Your task to perform on an android device: turn on wifi Image 0: 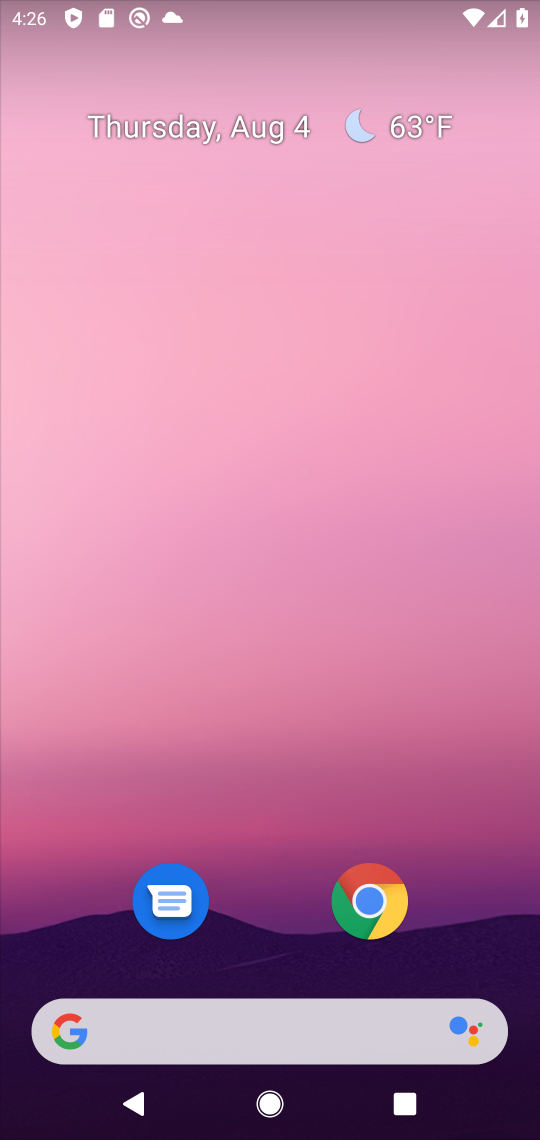
Step 0: drag from (258, 14) to (183, 673)
Your task to perform on an android device: turn on wifi Image 1: 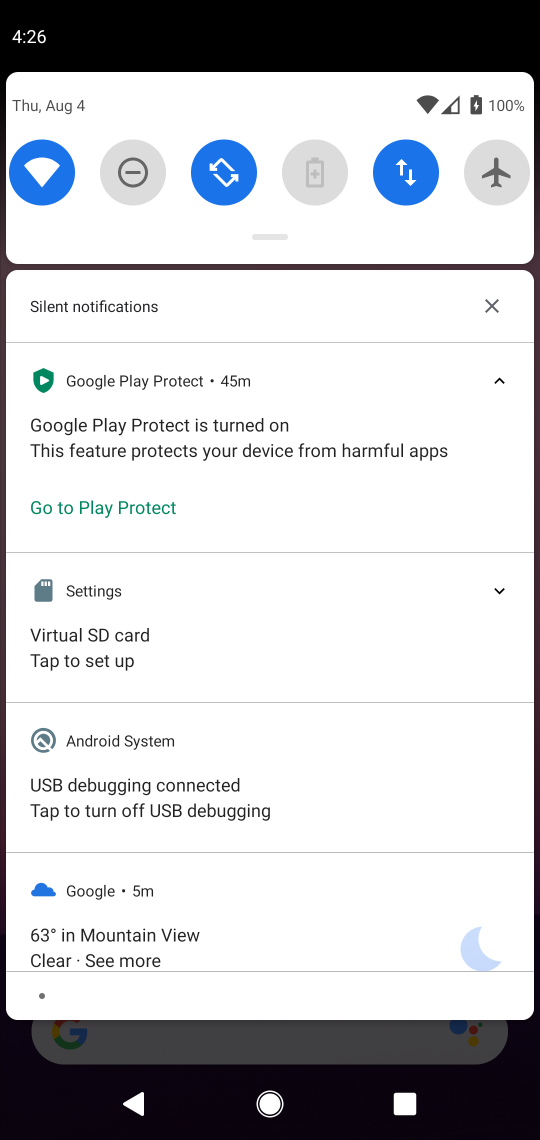
Step 1: task complete